Your task to perform on an android device: delete the emails in spam in the gmail app Image 0: 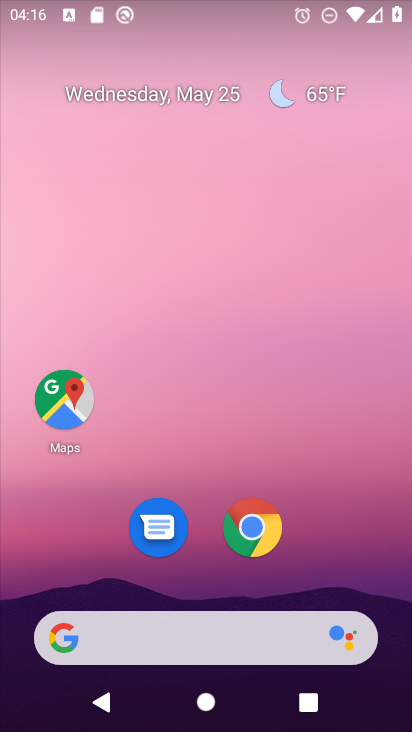
Step 0: drag from (245, 678) to (268, 0)
Your task to perform on an android device: delete the emails in spam in the gmail app Image 1: 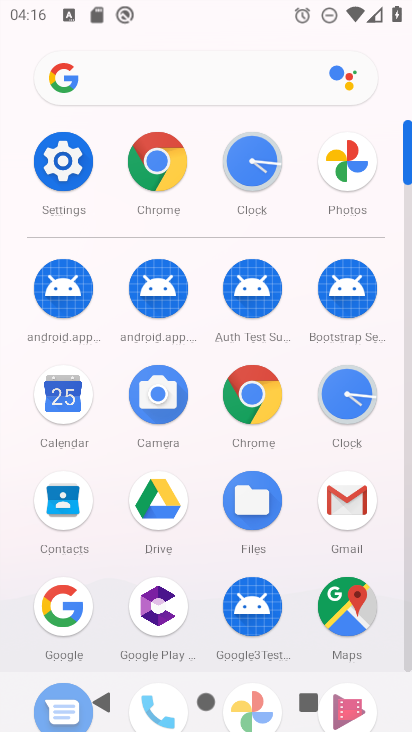
Step 1: click (355, 512)
Your task to perform on an android device: delete the emails in spam in the gmail app Image 2: 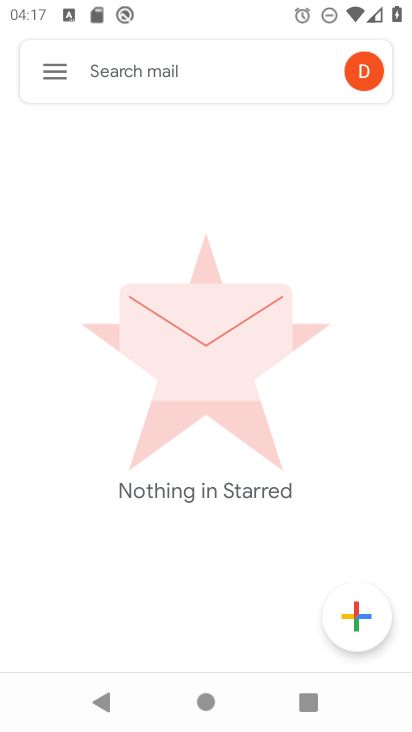
Step 2: click (59, 74)
Your task to perform on an android device: delete the emails in spam in the gmail app Image 3: 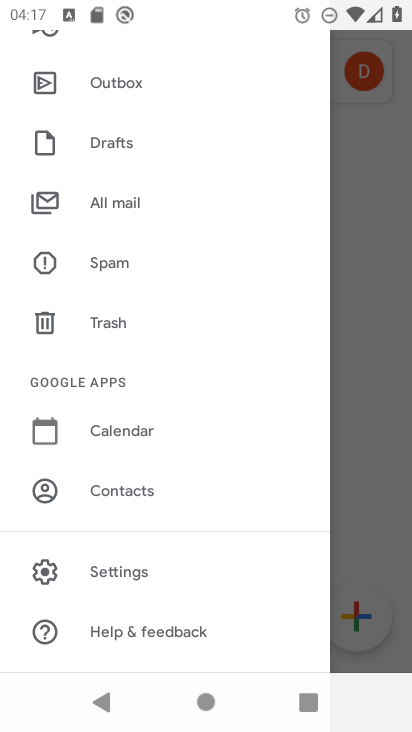
Step 3: click (122, 269)
Your task to perform on an android device: delete the emails in spam in the gmail app Image 4: 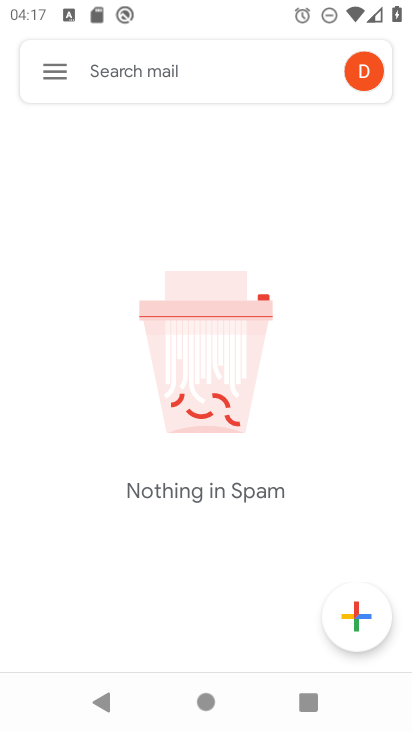
Step 4: task complete